Your task to perform on an android device: empty trash in the gmail app Image 0: 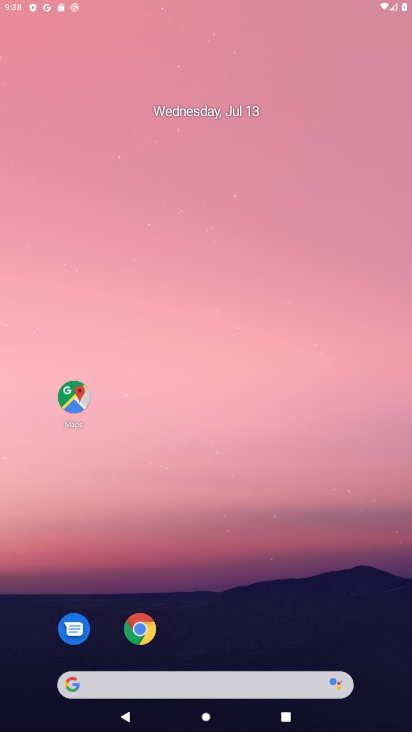
Step 0: click (337, 594)
Your task to perform on an android device: empty trash in the gmail app Image 1: 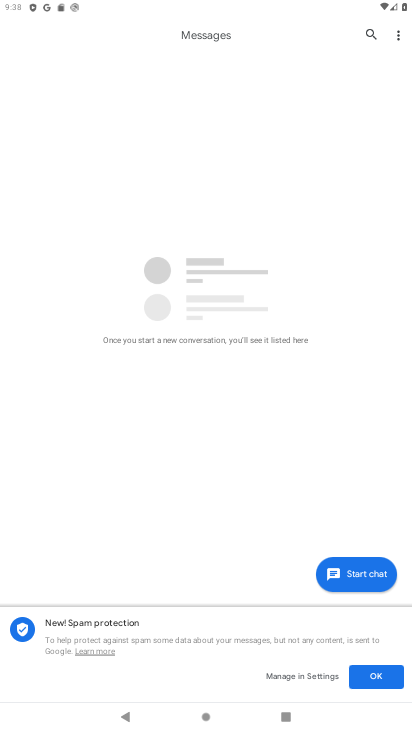
Step 1: click (282, 632)
Your task to perform on an android device: empty trash in the gmail app Image 2: 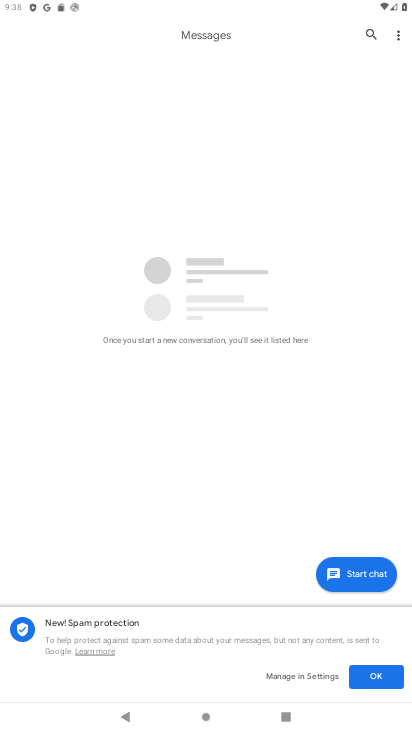
Step 2: press home button
Your task to perform on an android device: empty trash in the gmail app Image 3: 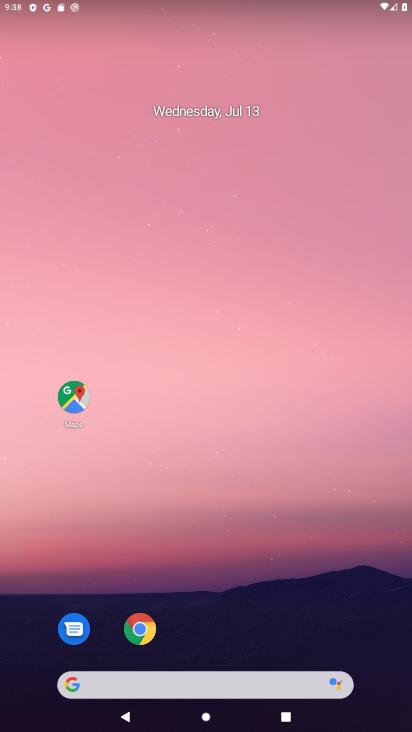
Step 3: drag from (271, 636) to (271, 75)
Your task to perform on an android device: empty trash in the gmail app Image 4: 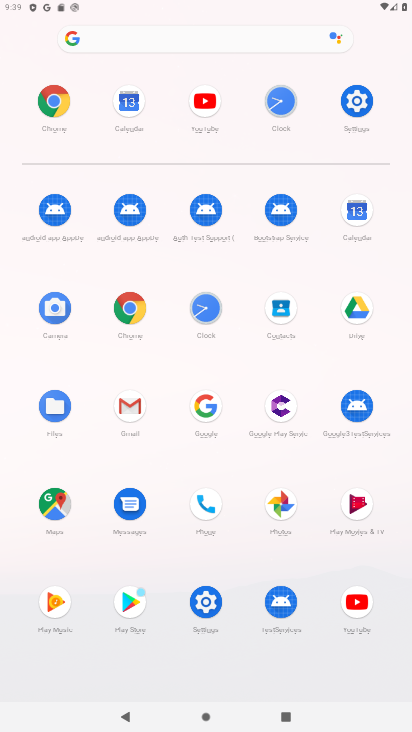
Step 4: click (137, 411)
Your task to perform on an android device: empty trash in the gmail app Image 5: 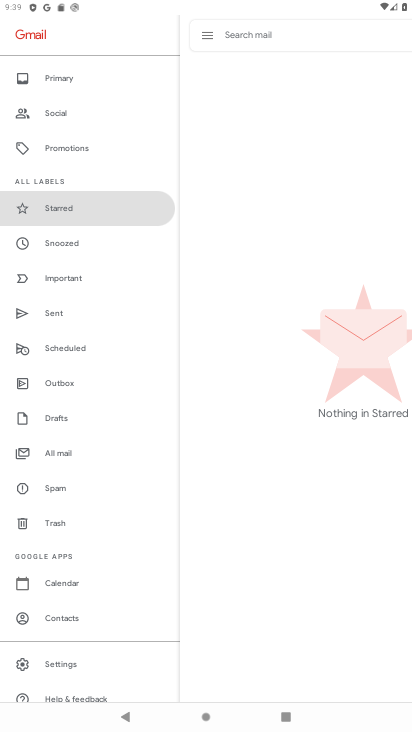
Step 5: click (68, 651)
Your task to perform on an android device: empty trash in the gmail app Image 6: 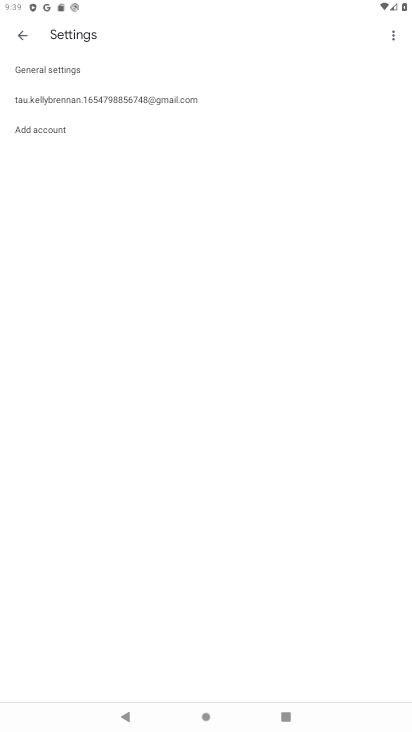
Step 6: click (11, 36)
Your task to perform on an android device: empty trash in the gmail app Image 7: 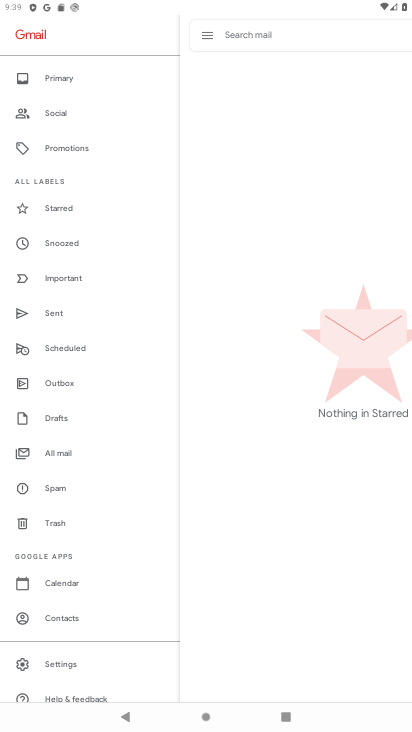
Step 7: click (52, 530)
Your task to perform on an android device: empty trash in the gmail app Image 8: 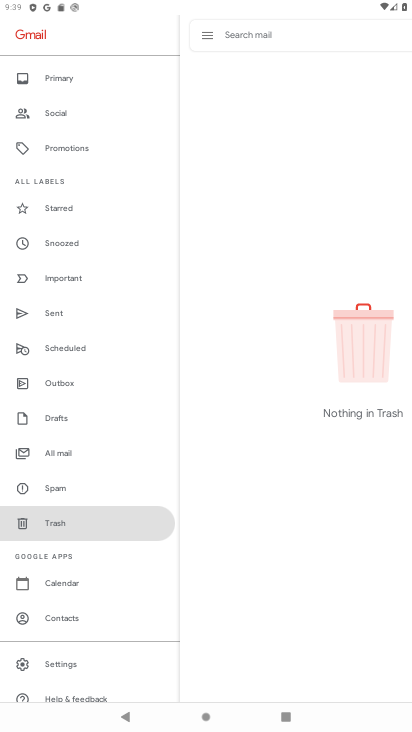
Step 8: task complete